Your task to perform on an android device: Is it going to rain tomorrow? Image 0: 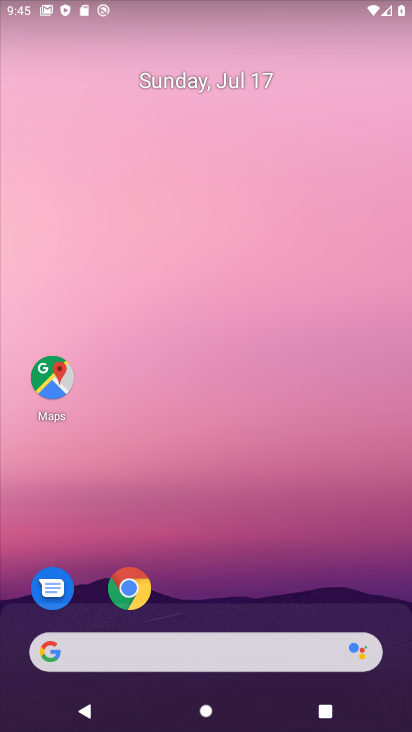
Step 0: drag from (210, 672) to (284, 72)
Your task to perform on an android device: Is it going to rain tomorrow? Image 1: 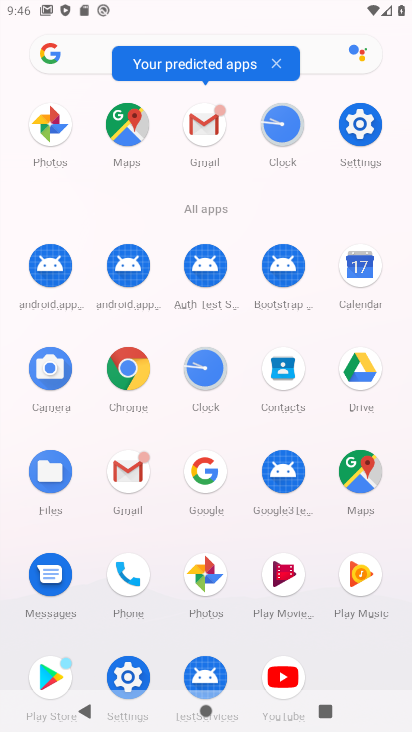
Step 1: click (208, 474)
Your task to perform on an android device: Is it going to rain tomorrow? Image 2: 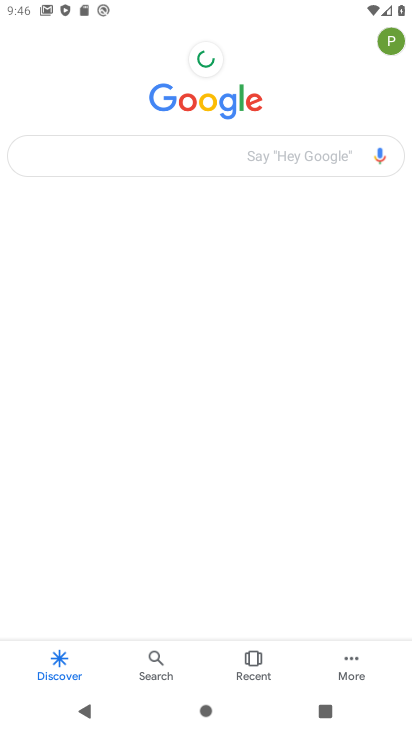
Step 2: click (280, 160)
Your task to perform on an android device: Is it going to rain tomorrow? Image 3: 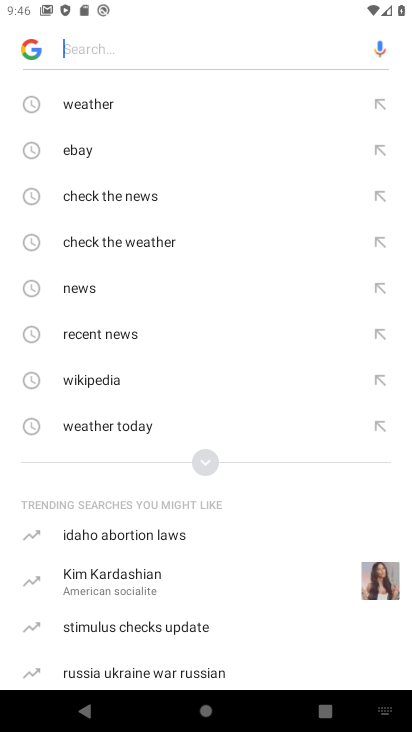
Step 3: type "Is it going to rain tomorrow?"
Your task to perform on an android device: Is it going to rain tomorrow? Image 4: 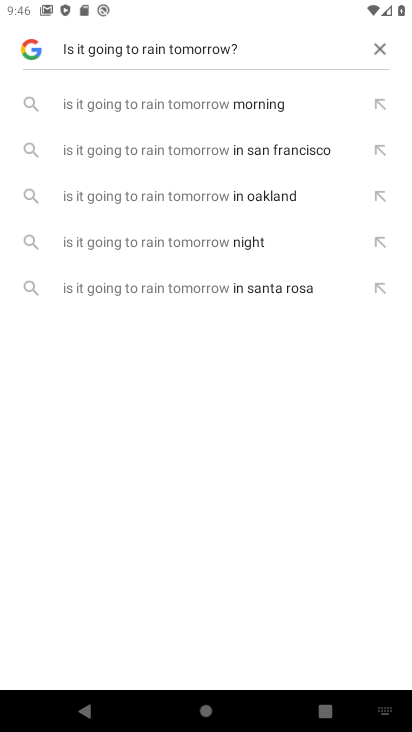
Step 4: press enter
Your task to perform on an android device: Is it going to rain tomorrow? Image 5: 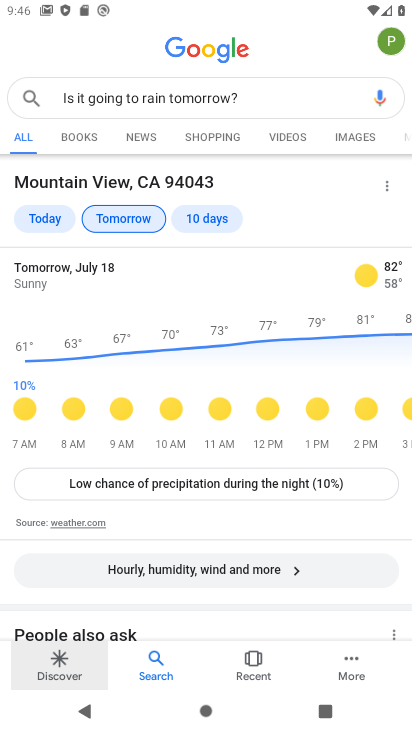
Step 5: task complete